Your task to perform on an android device: turn pop-ups off in chrome Image 0: 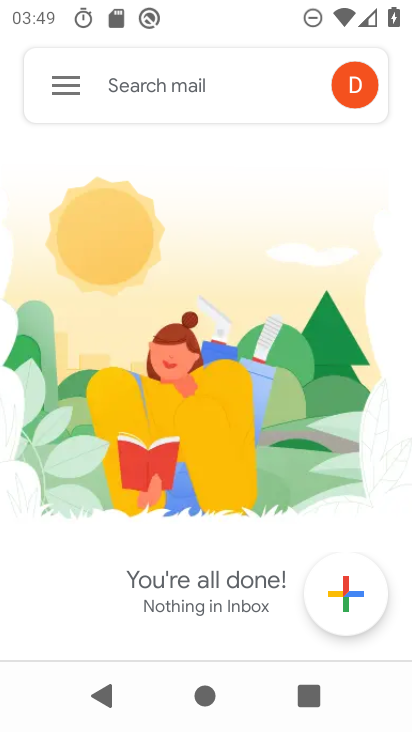
Step 0: press home button
Your task to perform on an android device: turn pop-ups off in chrome Image 1: 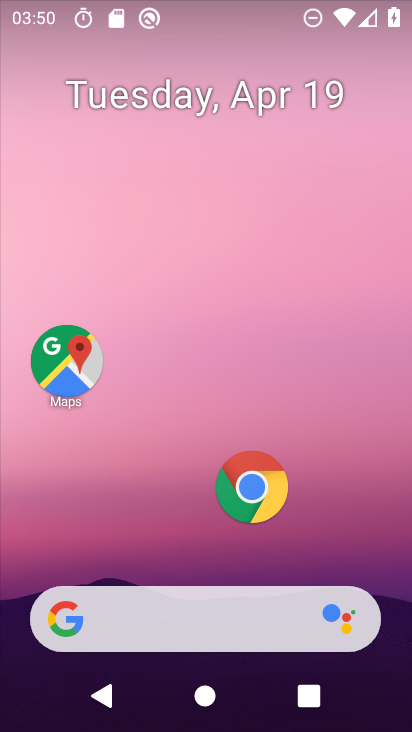
Step 1: click (251, 494)
Your task to perform on an android device: turn pop-ups off in chrome Image 2: 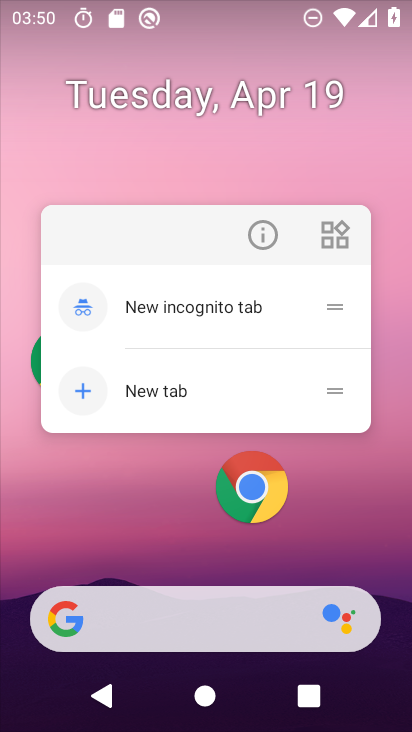
Step 2: click (251, 494)
Your task to perform on an android device: turn pop-ups off in chrome Image 3: 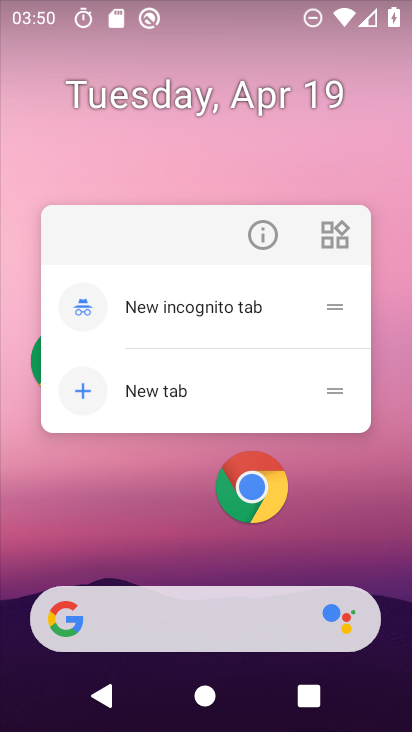
Step 3: click (244, 486)
Your task to perform on an android device: turn pop-ups off in chrome Image 4: 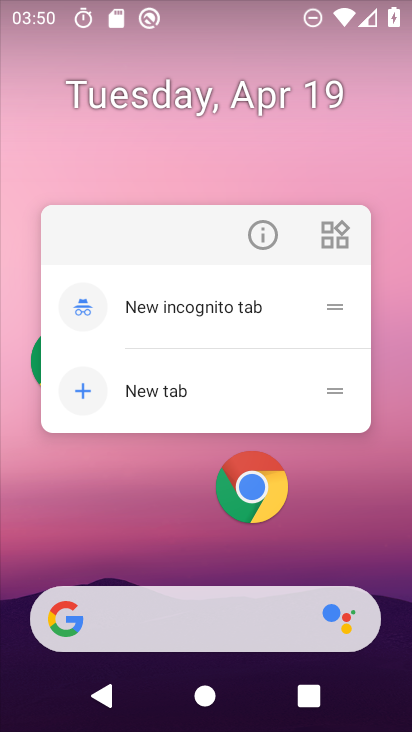
Step 4: click (253, 490)
Your task to perform on an android device: turn pop-ups off in chrome Image 5: 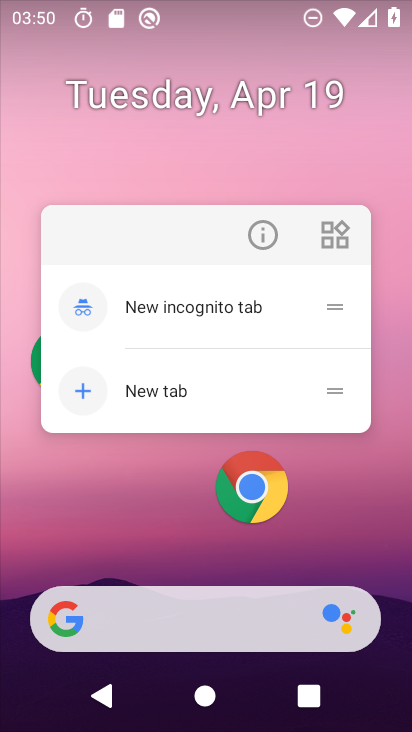
Step 5: click (261, 493)
Your task to perform on an android device: turn pop-ups off in chrome Image 6: 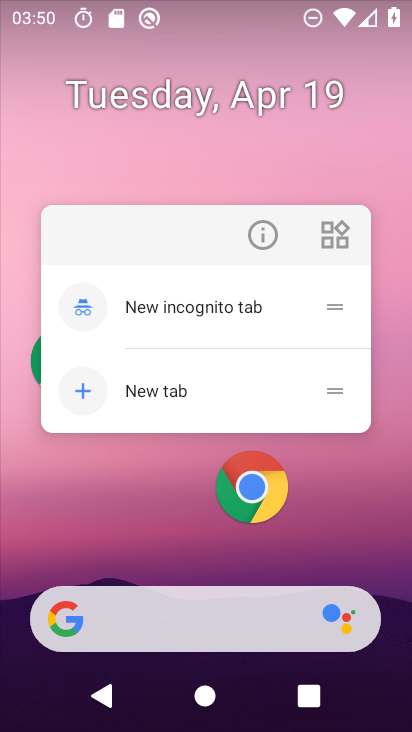
Step 6: click (251, 470)
Your task to perform on an android device: turn pop-ups off in chrome Image 7: 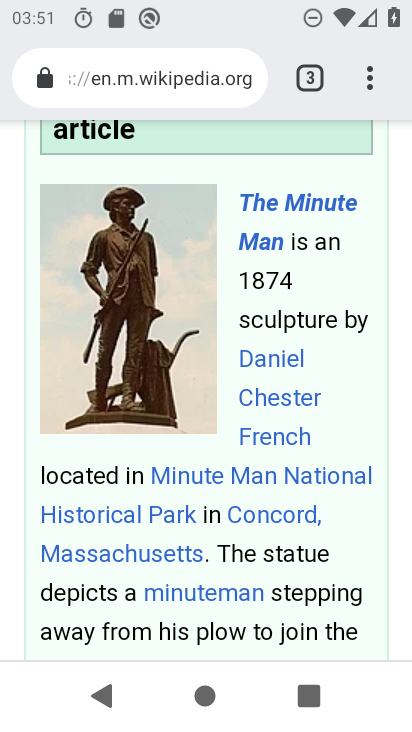
Step 7: drag from (372, 74) to (109, 536)
Your task to perform on an android device: turn pop-ups off in chrome Image 8: 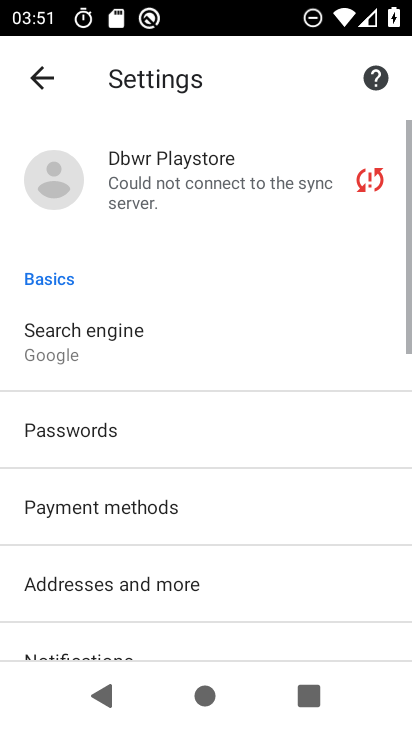
Step 8: drag from (141, 562) to (271, 140)
Your task to perform on an android device: turn pop-ups off in chrome Image 9: 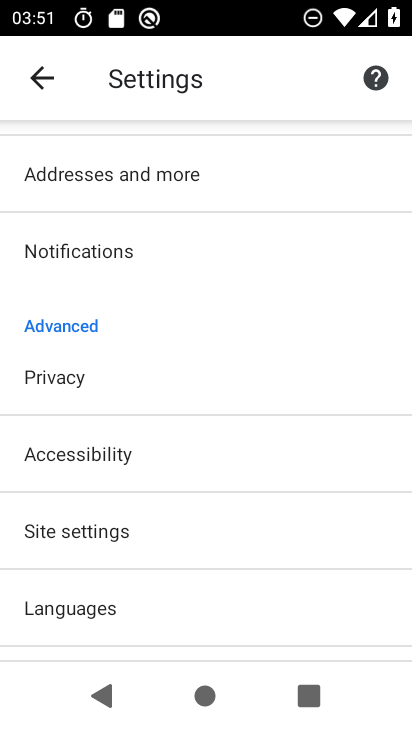
Step 9: click (69, 538)
Your task to perform on an android device: turn pop-ups off in chrome Image 10: 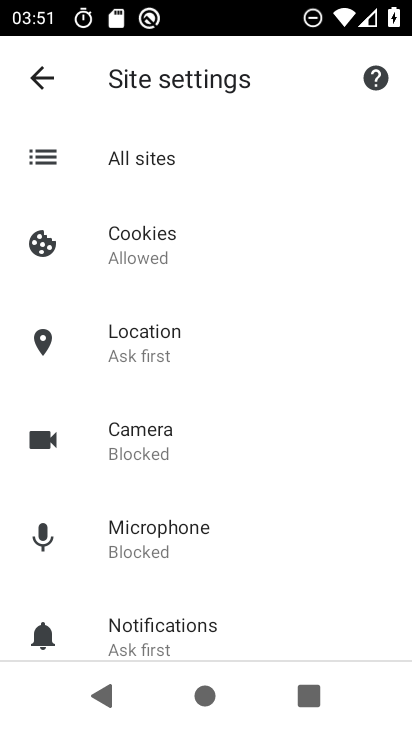
Step 10: drag from (172, 568) to (267, 133)
Your task to perform on an android device: turn pop-ups off in chrome Image 11: 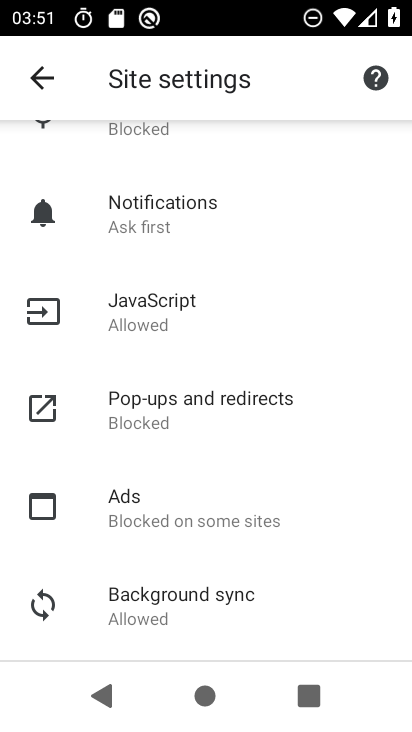
Step 11: click (178, 412)
Your task to perform on an android device: turn pop-ups off in chrome Image 12: 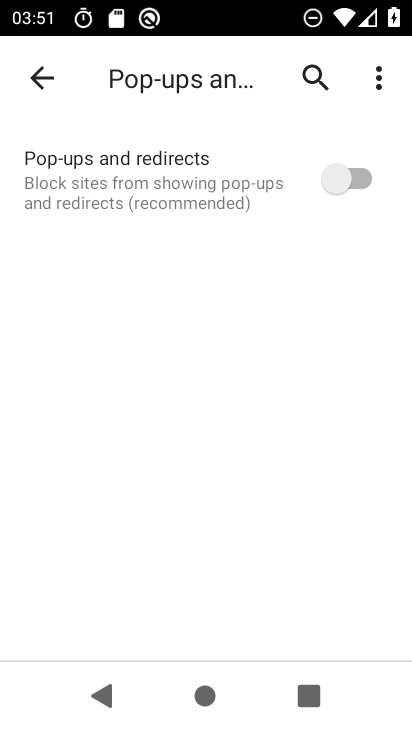
Step 12: task complete